Your task to perform on an android device: Toggle the flashlight Image 0: 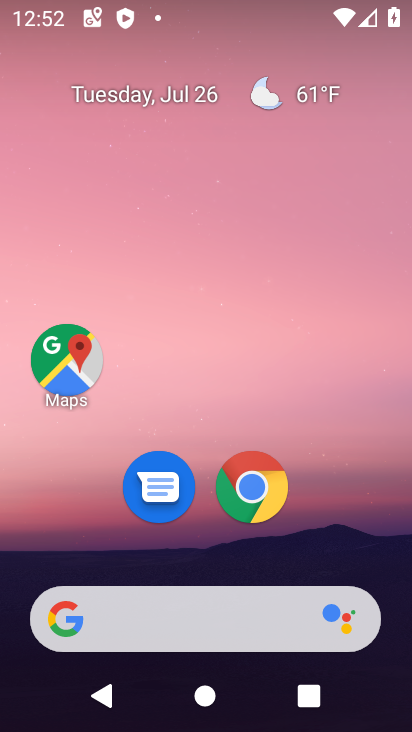
Step 0: drag from (177, 544) to (221, 20)
Your task to perform on an android device: Toggle the flashlight Image 1: 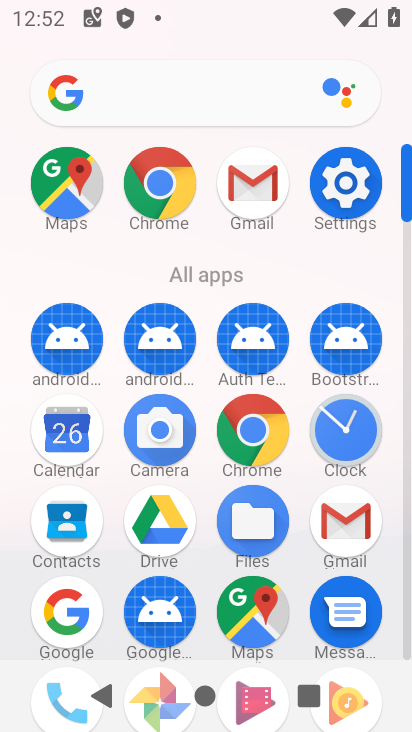
Step 1: click (348, 198)
Your task to perform on an android device: Toggle the flashlight Image 2: 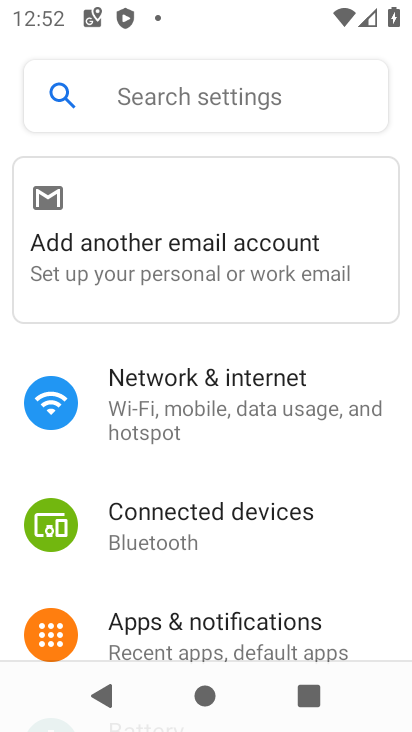
Step 2: click (193, 85)
Your task to perform on an android device: Toggle the flashlight Image 3: 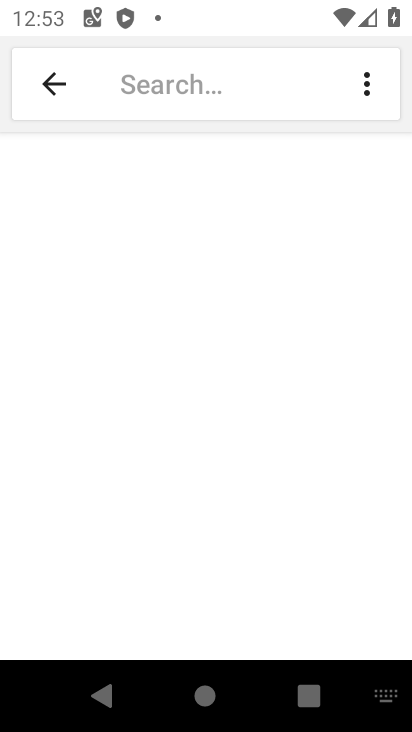
Step 3: type "flashlight"
Your task to perform on an android device: Toggle the flashlight Image 4: 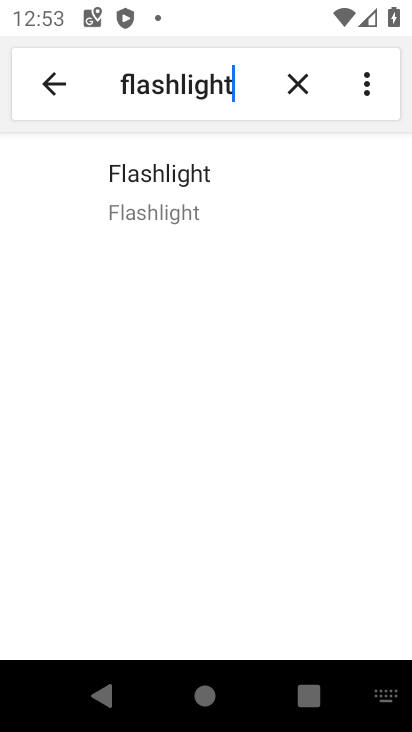
Step 4: click (155, 184)
Your task to perform on an android device: Toggle the flashlight Image 5: 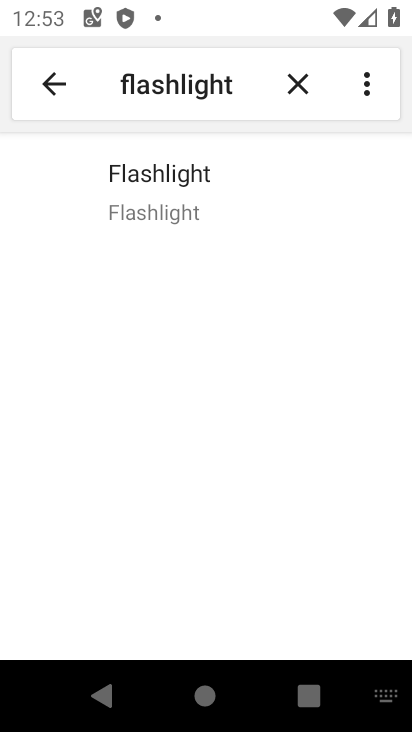
Step 5: click (188, 184)
Your task to perform on an android device: Toggle the flashlight Image 6: 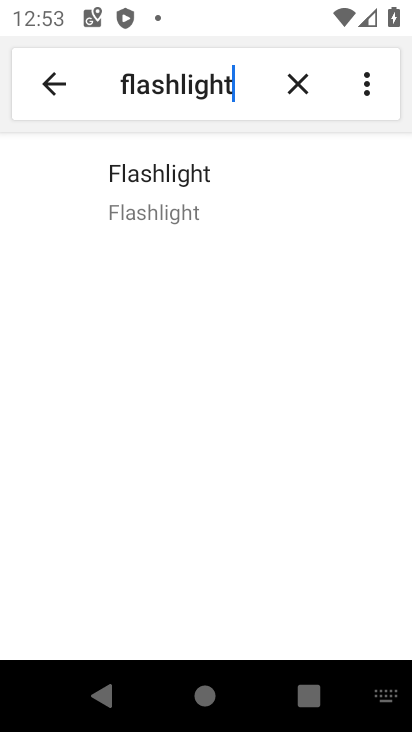
Step 6: task complete